Your task to perform on an android device: What is the news today? Image 0: 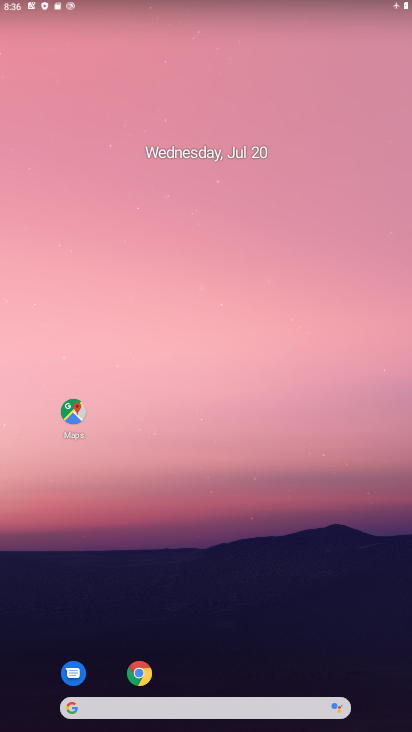
Step 0: drag from (2, 272) to (384, 282)
Your task to perform on an android device: What is the news today? Image 1: 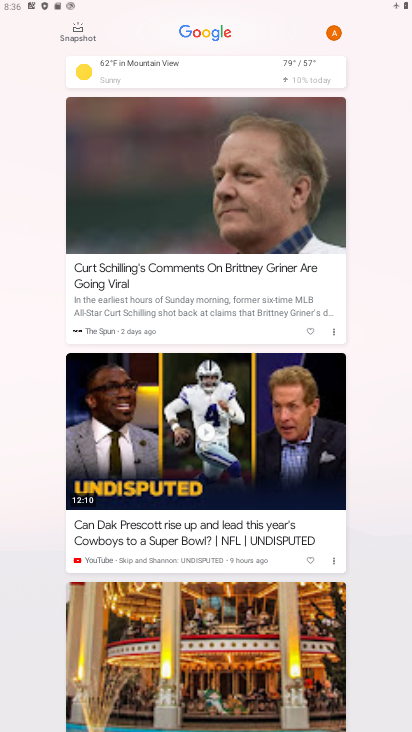
Step 1: task complete